Your task to perform on an android device: toggle improve location accuracy Image 0: 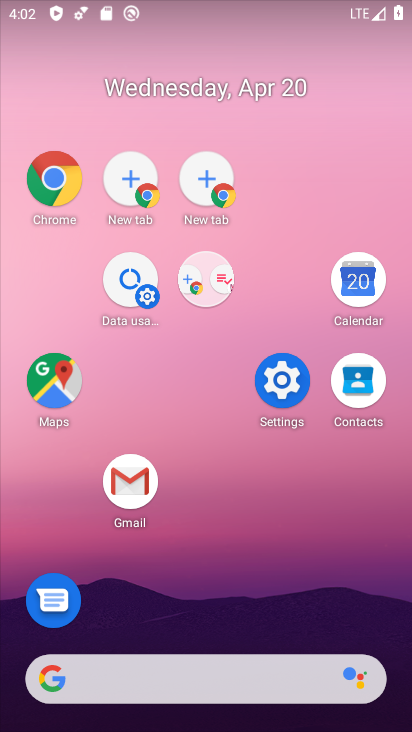
Step 0: drag from (274, 621) to (99, 177)
Your task to perform on an android device: toggle improve location accuracy Image 1: 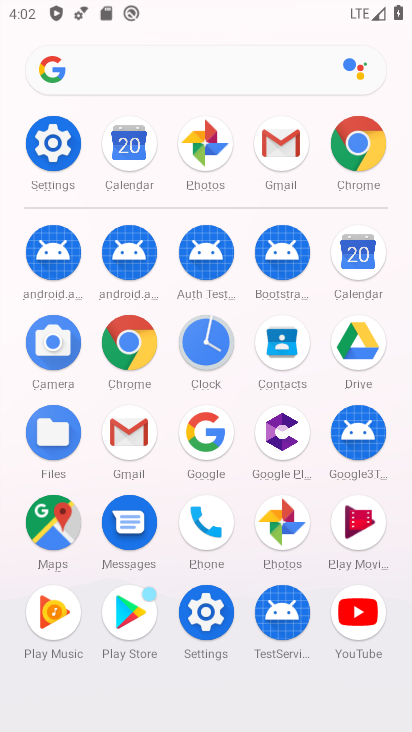
Step 1: click (45, 145)
Your task to perform on an android device: toggle improve location accuracy Image 2: 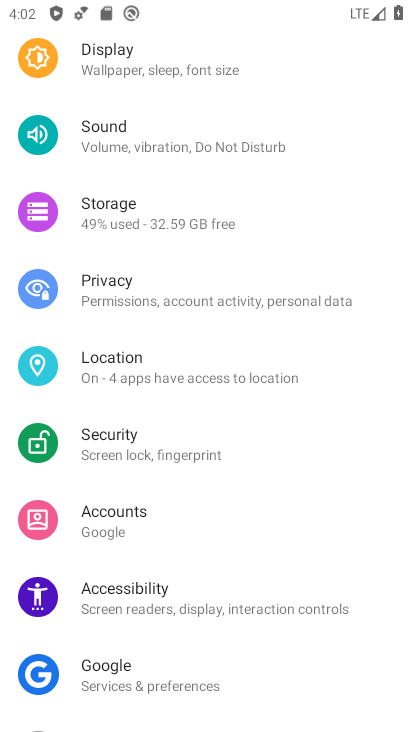
Step 2: click (105, 368)
Your task to perform on an android device: toggle improve location accuracy Image 3: 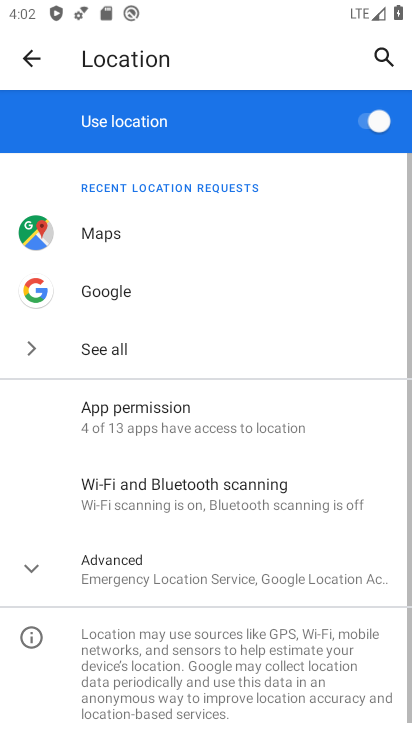
Step 3: click (208, 580)
Your task to perform on an android device: toggle improve location accuracy Image 4: 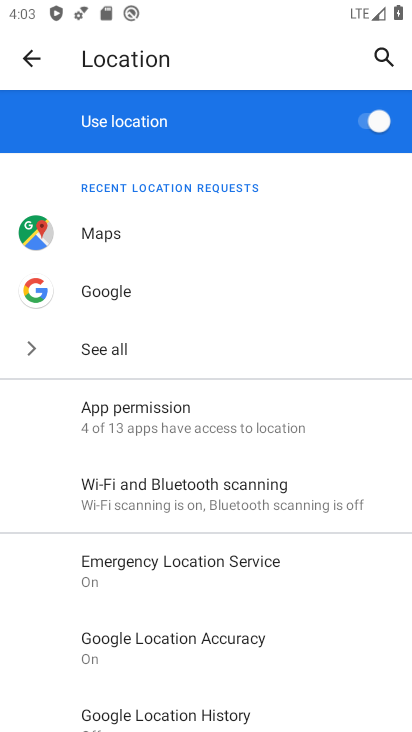
Step 4: click (160, 641)
Your task to perform on an android device: toggle improve location accuracy Image 5: 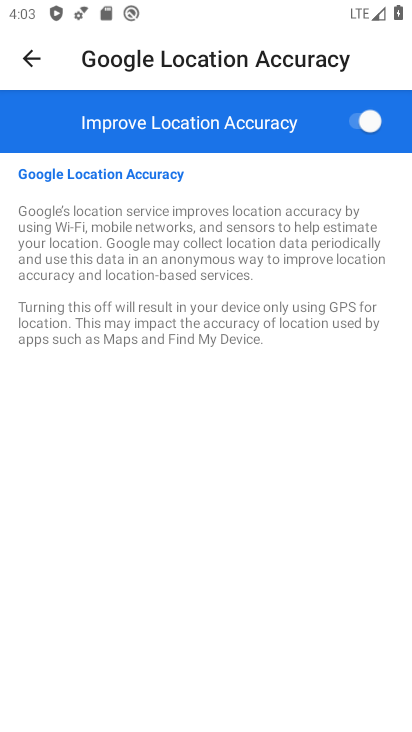
Step 5: click (371, 123)
Your task to perform on an android device: toggle improve location accuracy Image 6: 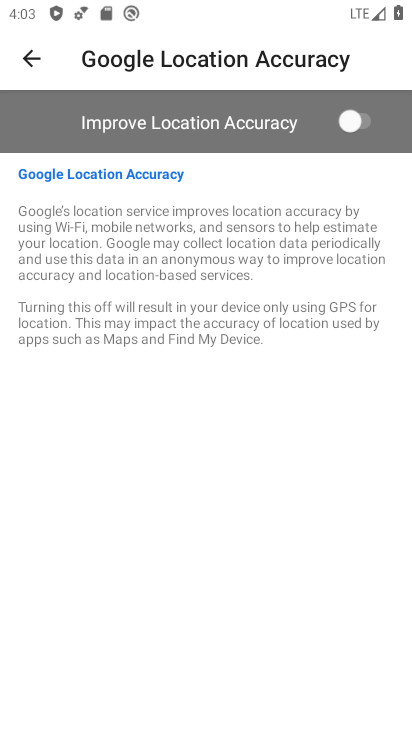
Step 6: task complete